Your task to perform on an android device: Open Google Chrome and open the bookmarks view Image 0: 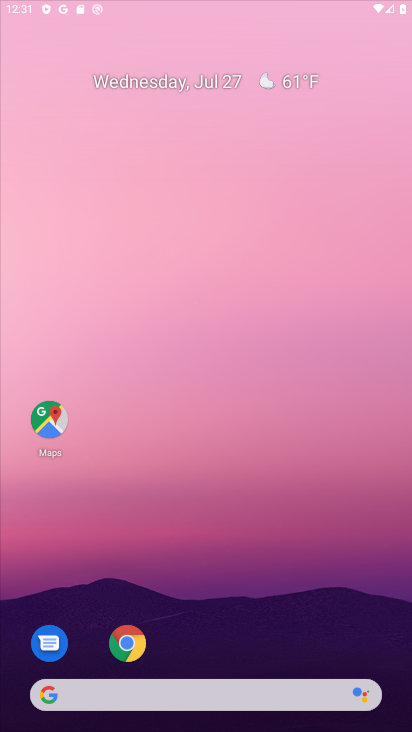
Step 0: click (294, 155)
Your task to perform on an android device: Open Google Chrome and open the bookmarks view Image 1: 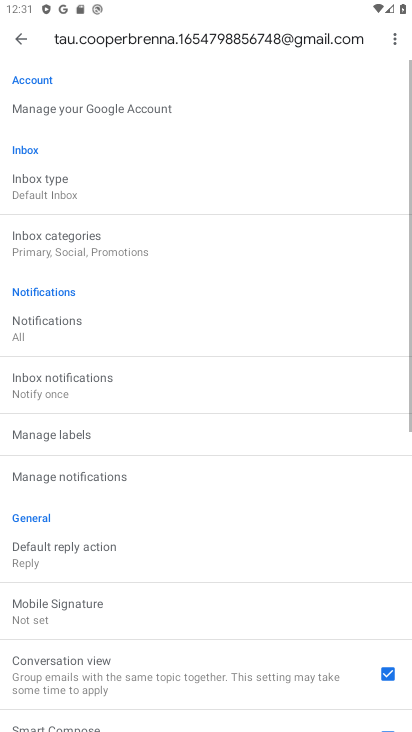
Step 1: press home button
Your task to perform on an android device: Open Google Chrome and open the bookmarks view Image 2: 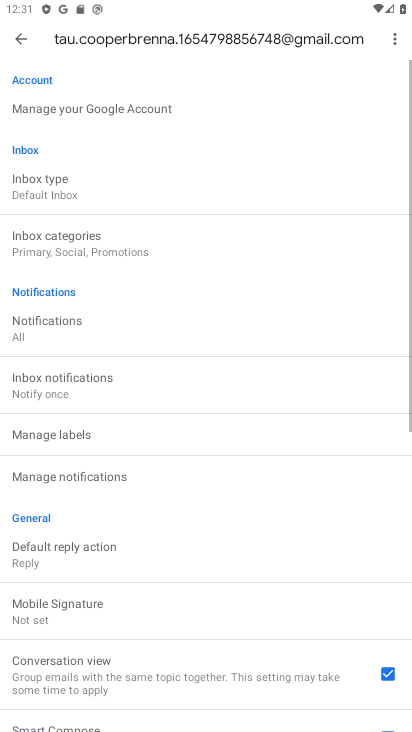
Step 2: drag from (198, 606) to (227, 194)
Your task to perform on an android device: Open Google Chrome and open the bookmarks view Image 3: 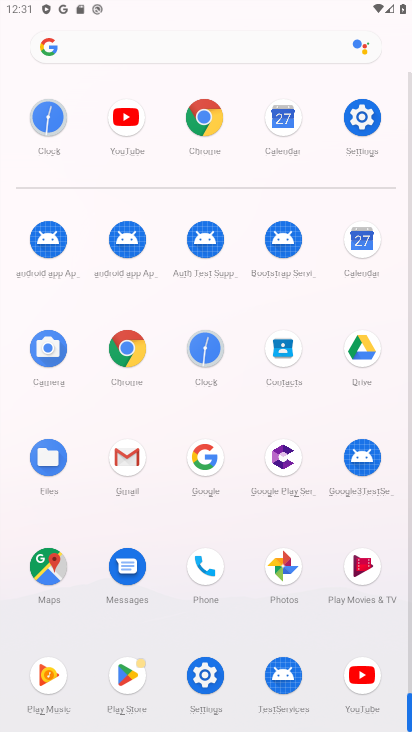
Step 3: click (124, 343)
Your task to perform on an android device: Open Google Chrome and open the bookmarks view Image 4: 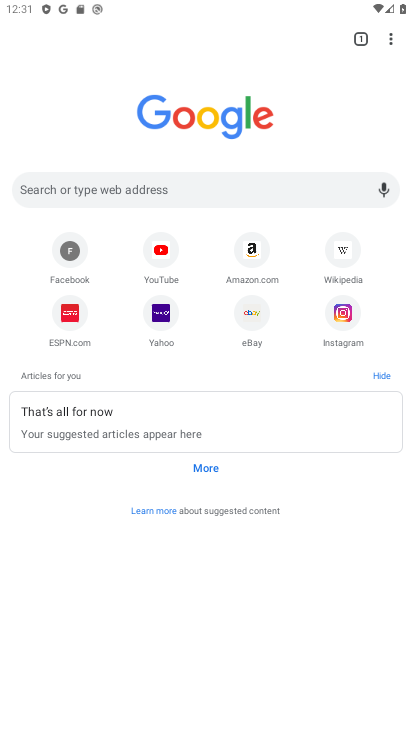
Step 4: drag from (388, 42) to (280, 363)
Your task to perform on an android device: Open Google Chrome and open the bookmarks view Image 5: 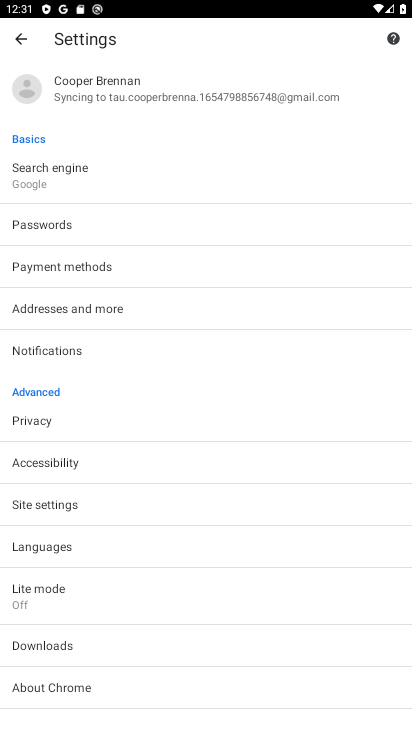
Step 5: drag from (222, 543) to (227, 281)
Your task to perform on an android device: Open Google Chrome and open the bookmarks view Image 6: 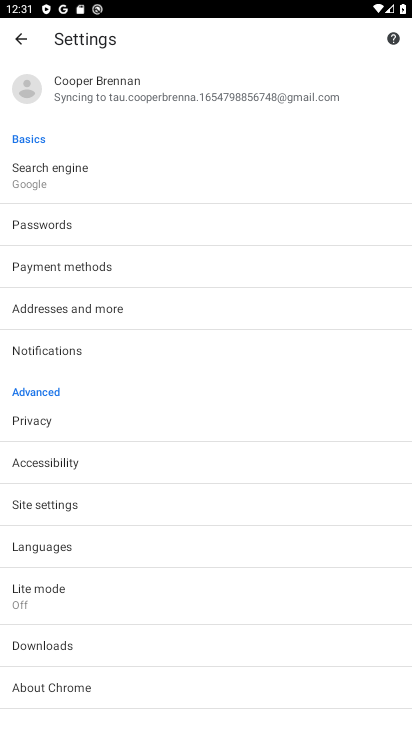
Step 6: click (14, 35)
Your task to perform on an android device: Open Google Chrome and open the bookmarks view Image 7: 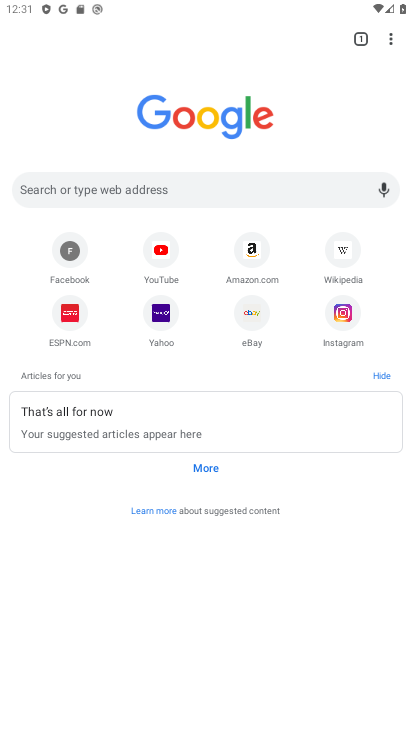
Step 7: task complete